Your task to perform on an android device: create a new album in the google photos Image 0: 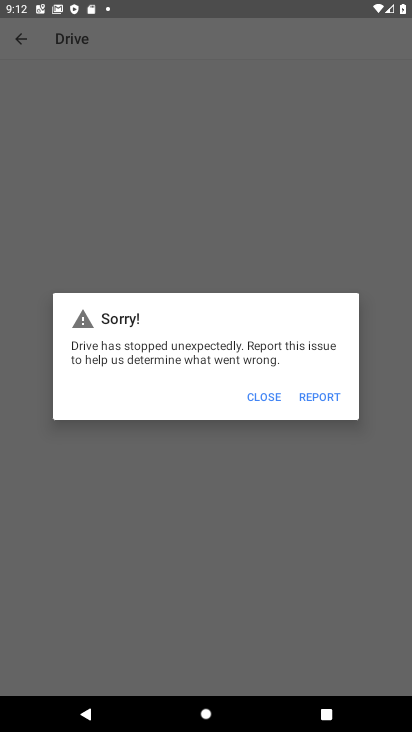
Step 0: press back button
Your task to perform on an android device: create a new album in the google photos Image 1: 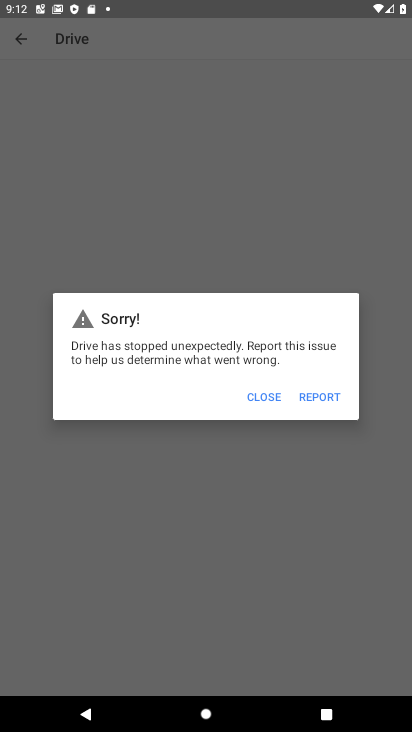
Step 1: press back button
Your task to perform on an android device: create a new album in the google photos Image 2: 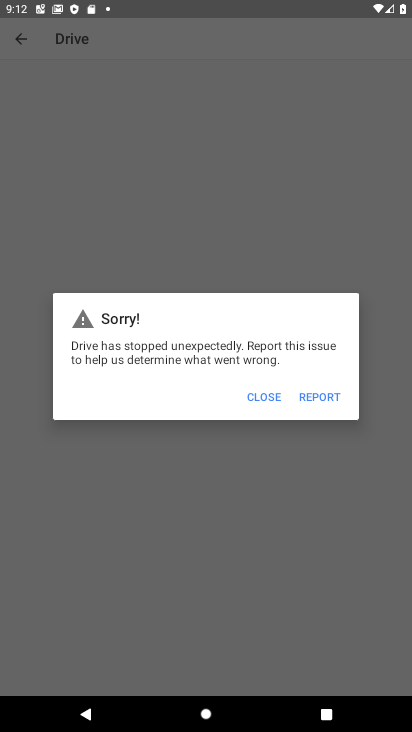
Step 2: press home button
Your task to perform on an android device: create a new album in the google photos Image 3: 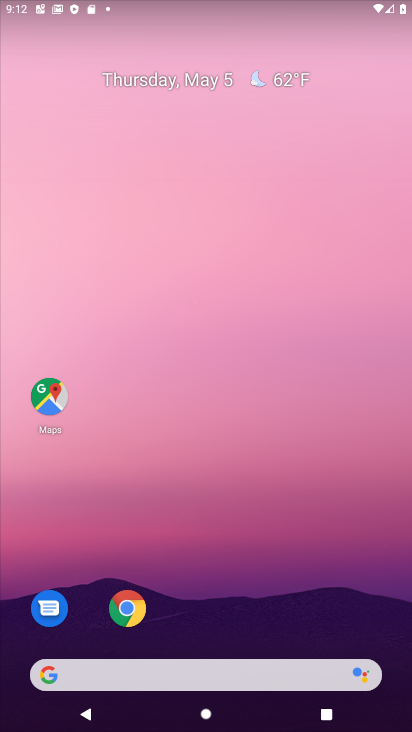
Step 3: drag from (278, 599) to (250, 52)
Your task to perform on an android device: create a new album in the google photos Image 4: 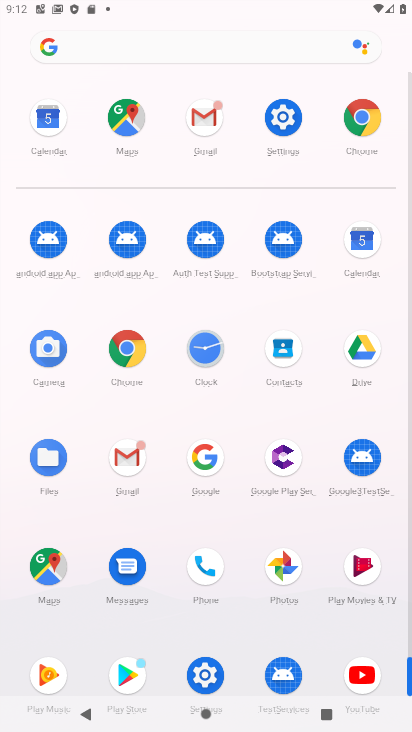
Step 4: drag from (11, 537) to (11, 183)
Your task to perform on an android device: create a new album in the google photos Image 5: 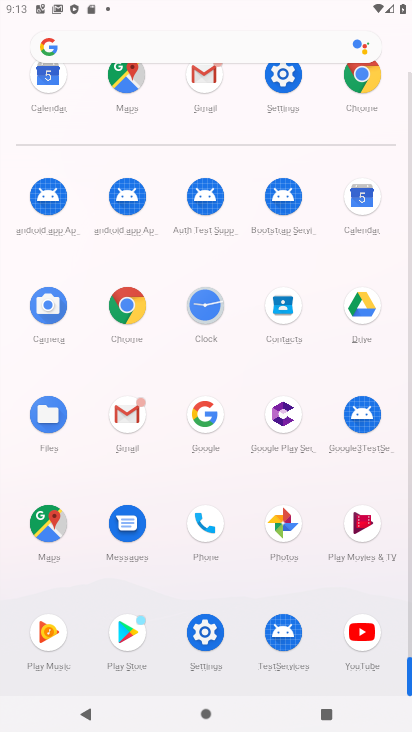
Step 5: drag from (7, 509) to (0, 216)
Your task to perform on an android device: create a new album in the google photos Image 6: 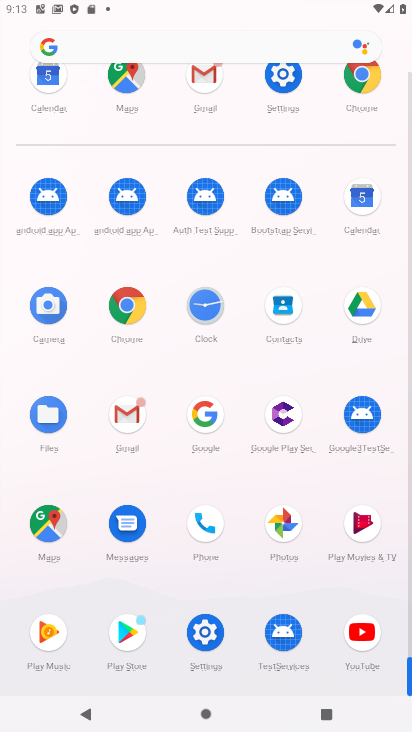
Step 6: click (283, 523)
Your task to perform on an android device: create a new album in the google photos Image 7: 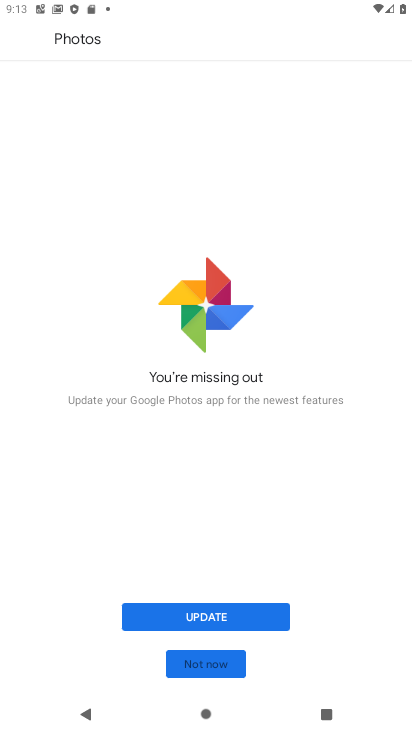
Step 7: click (216, 662)
Your task to perform on an android device: create a new album in the google photos Image 8: 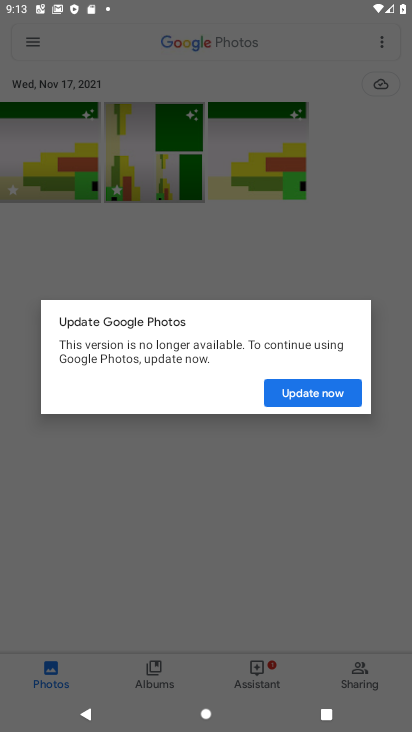
Step 8: click (314, 393)
Your task to perform on an android device: create a new album in the google photos Image 9: 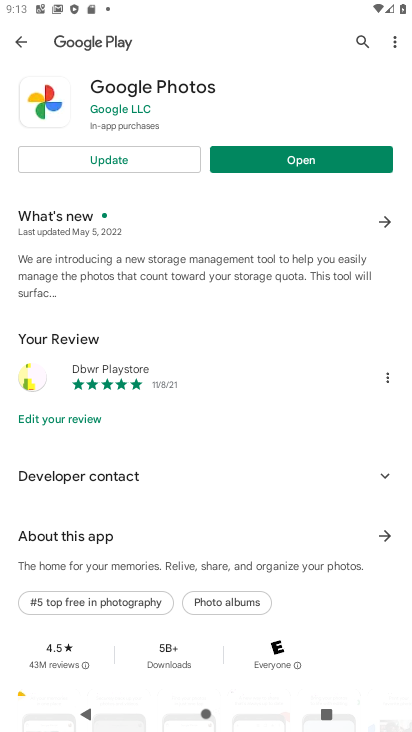
Step 9: click (118, 158)
Your task to perform on an android device: create a new album in the google photos Image 10: 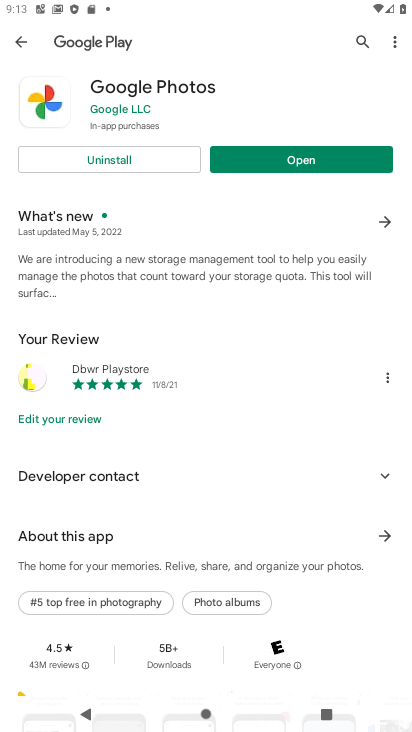
Step 10: click (305, 162)
Your task to perform on an android device: create a new album in the google photos Image 11: 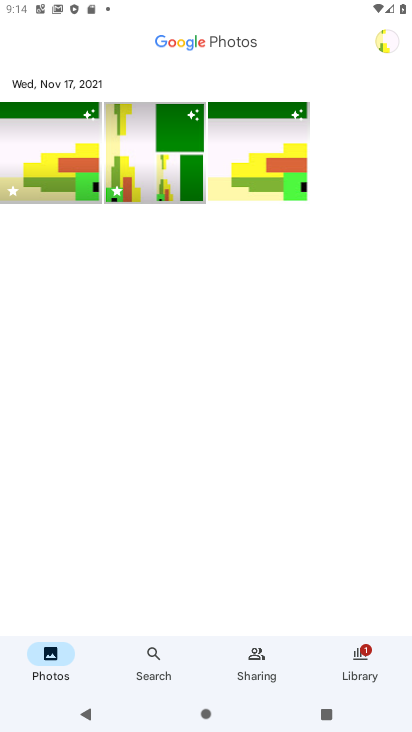
Step 11: click (247, 172)
Your task to perform on an android device: create a new album in the google photos Image 12: 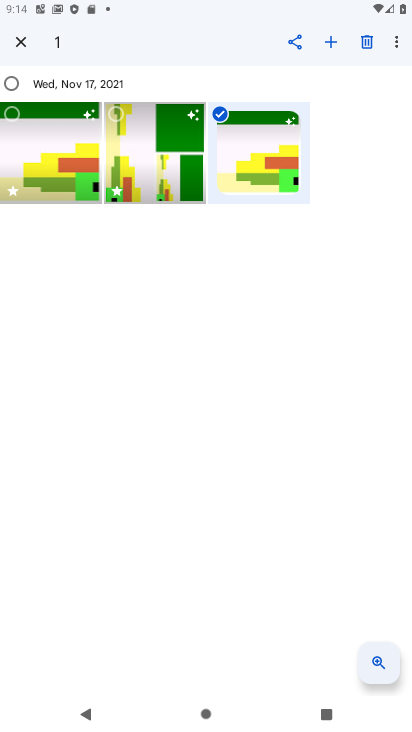
Step 12: click (337, 38)
Your task to perform on an android device: create a new album in the google photos Image 13: 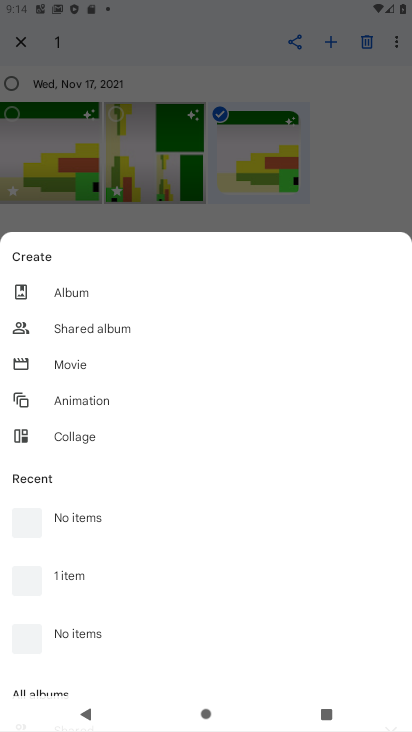
Step 13: click (92, 294)
Your task to perform on an android device: create a new album in the google photos Image 14: 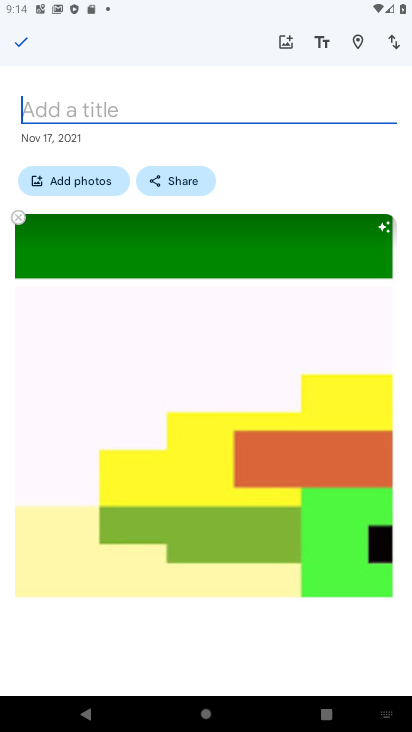
Step 14: type "lkjk"
Your task to perform on an android device: create a new album in the google photos Image 15: 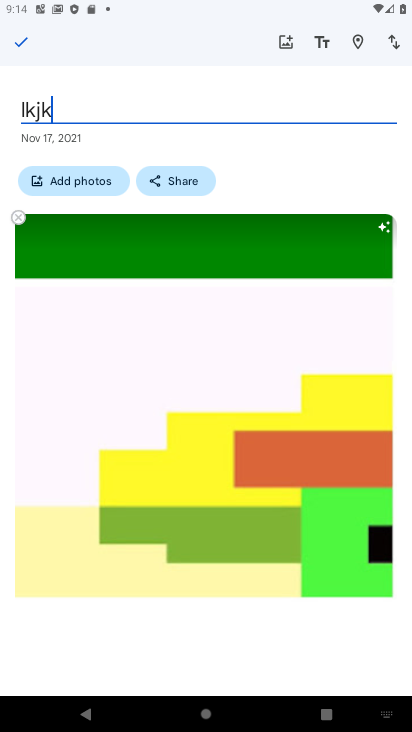
Step 15: type ""
Your task to perform on an android device: create a new album in the google photos Image 16: 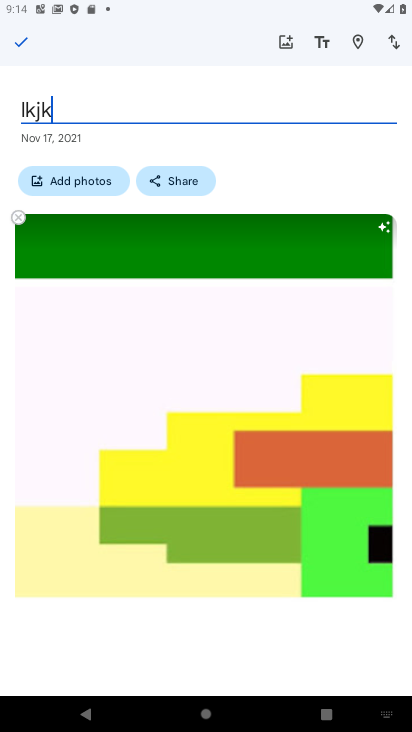
Step 16: click (17, 40)
Your task to perform on an android device: create a new album in the google photos Image 17: 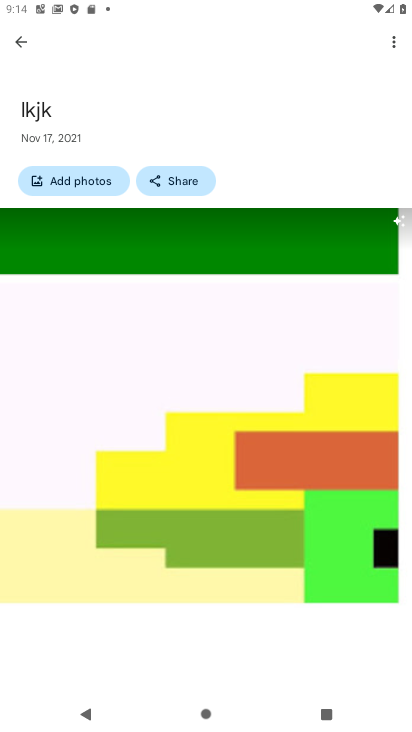
Step 17: task complete